Your task to perform on an android device: Open the map Image 0: 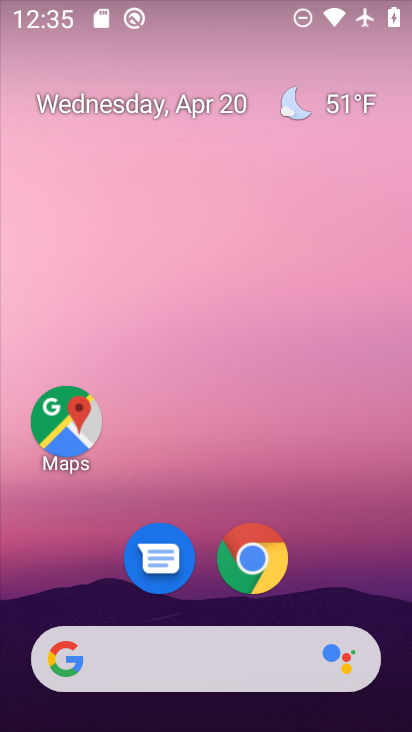
Step 0: click (67, 418)
Your task to perform on an android device: Open the map Image 1: 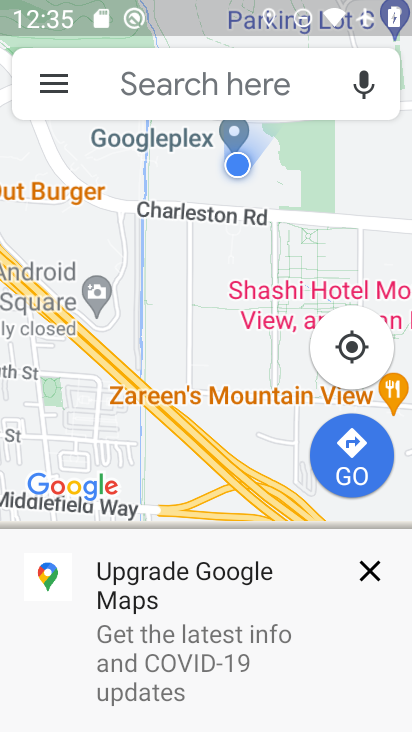
Step 1: click (155, 380)
Your task to perform on an android device: Open the map Image 2: 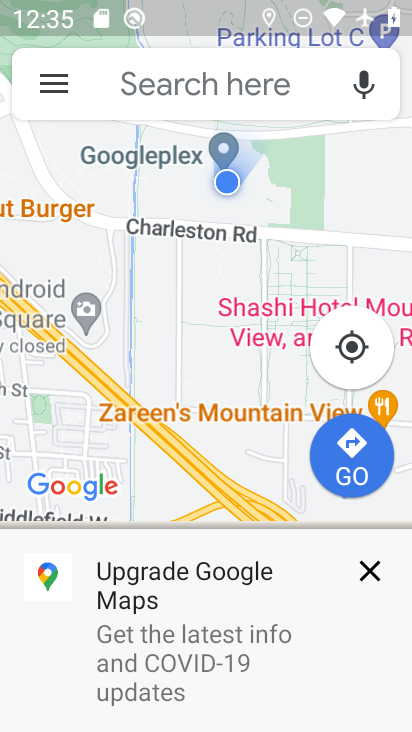
Step 2: task complete